Your task to perform on an android device: change notification settings in the gmail app Image 0: 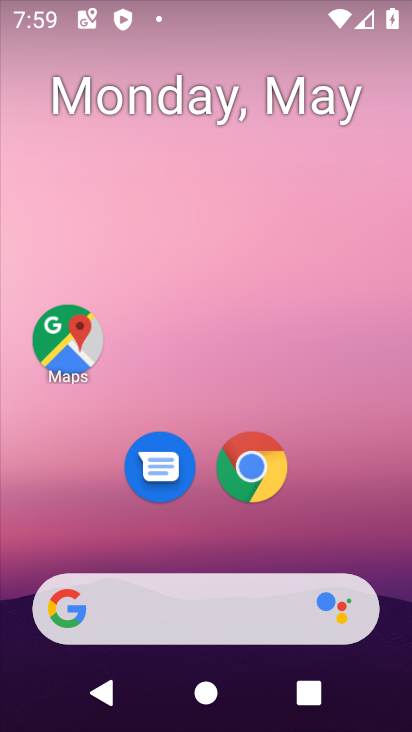
Step 0: press home button
Your task to perform on an android device: change notification settings in the gmail app Image 1: 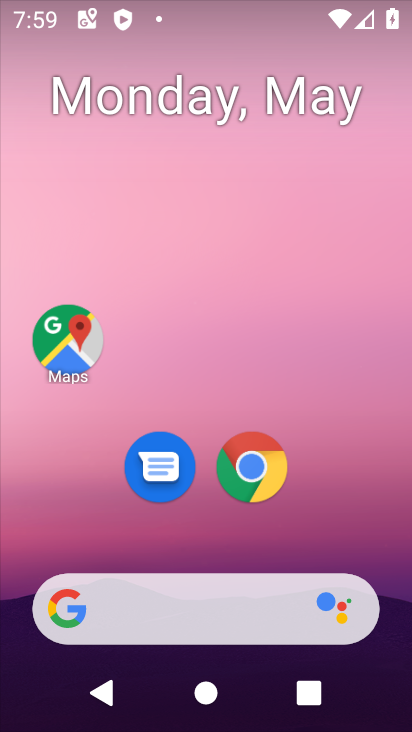
Step 1: drag from (333, 529) to (203, 10)
Your task to perform on an android device: change notification settings in the gmail app Image 2: 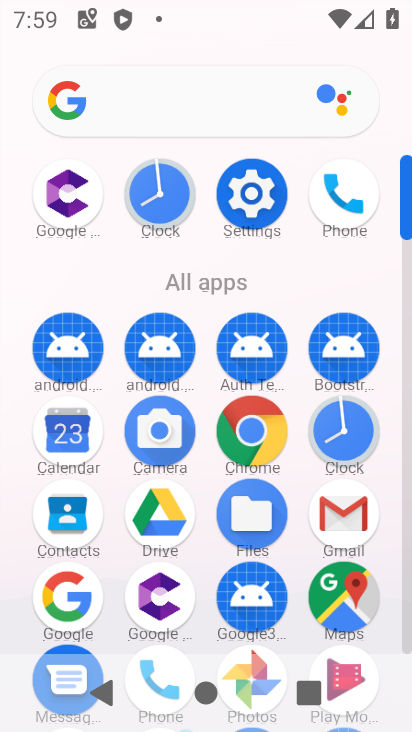
Step 2: click (351, 514)
Your task to perform on an android device: change notification settings in the gmail app Image 3: 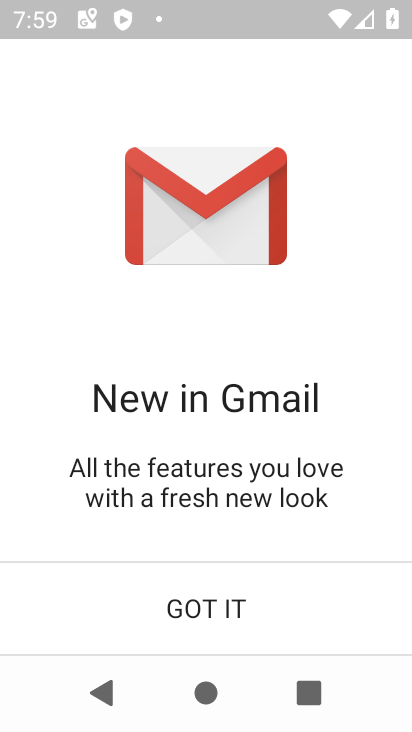
Step 3: click (216, 606)
Your task to perform on an android device: change notification settings in the gmail app Image 4: 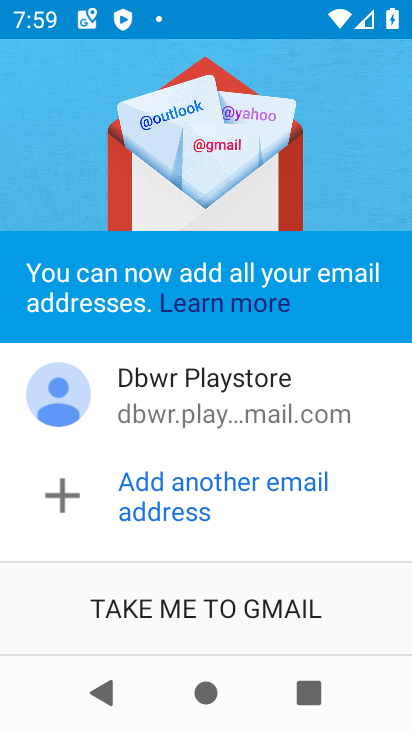
Step 4: click (227, 611)
Your task to perform on an android device: change notification settings in the gmail app Image 5: 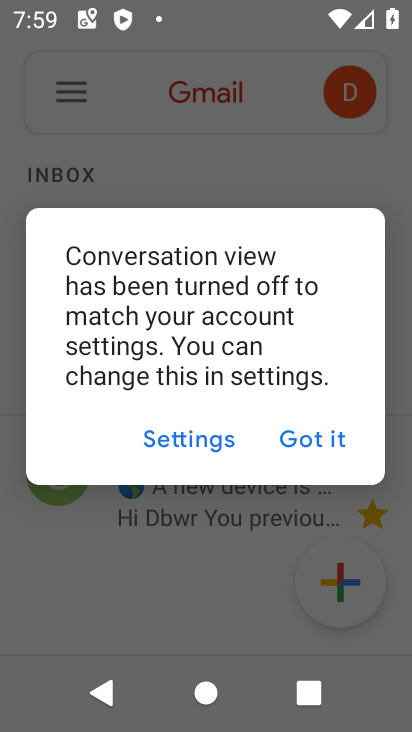
Step 5: click (318, 441)
Your task to perform on an android device: change notification settings in the gmail app Image 6: 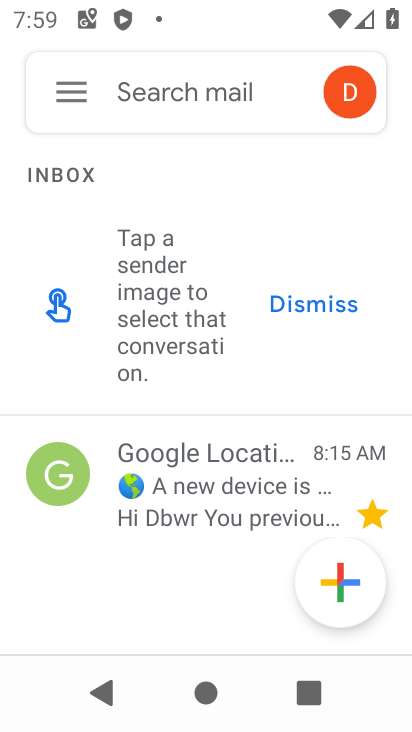
Step 6: click (74, 89)
Your task to perform on an android device: change notification settings in the gmail app Image 7: 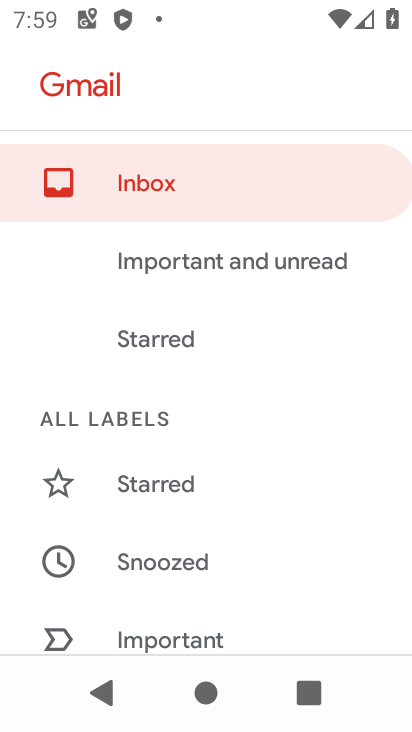
Step 7: drag from (267, 543) to (239, 63)
Your task to perform on an android device: change notification settings in the gmail app Image 8: 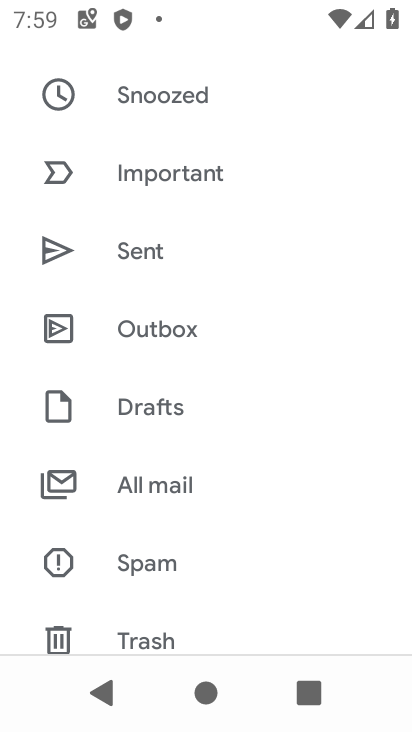
Step 8: drag from (260, 529) to (210, 40)
Your task to perform on an android device: change notification settings in the gmail app Image 9: 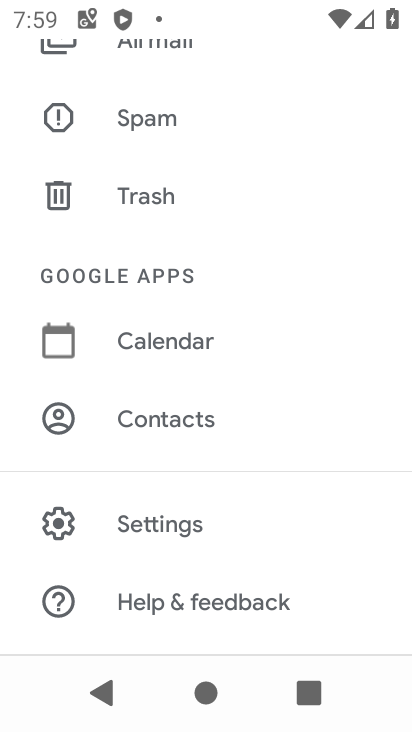
Step 9: click (154, 514)
Your task to perform on an android device: change notification settings in the gmail app Image 10: 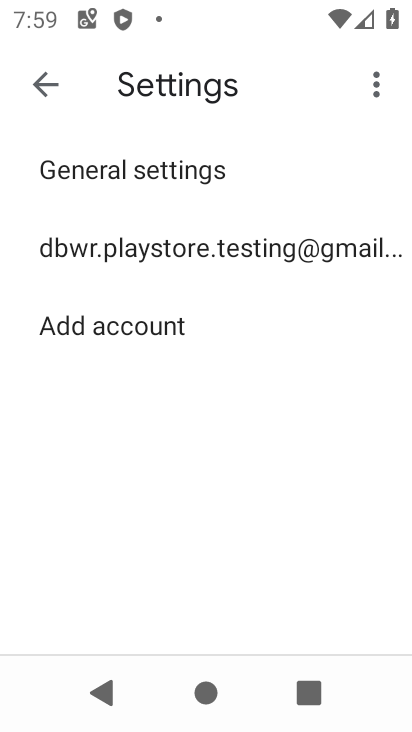
Step 10: click (158, 246)
Your task to perform on an android device: change notification settings in the gmail app Image 11: 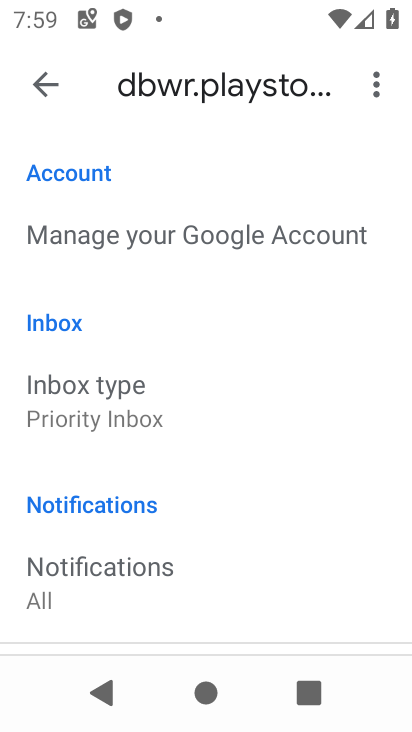
Step 11: click (220, 586)
Your task to perform on an android device: change notification settings in the gmail app Image 12: 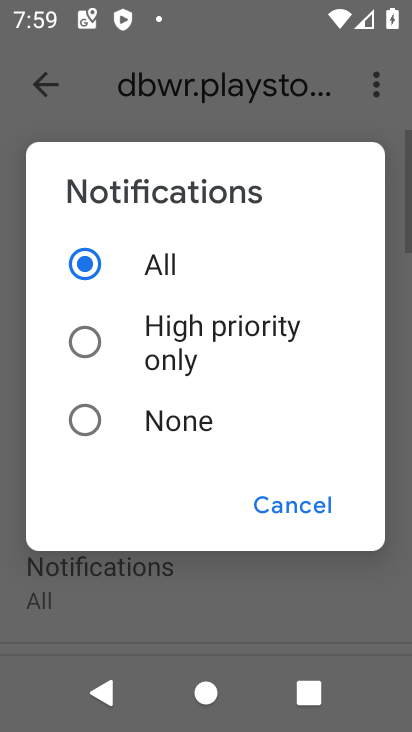
Step 12: click (176, 421)
Your task to perform on an android device: change notification settings in the gmail app Image 13: 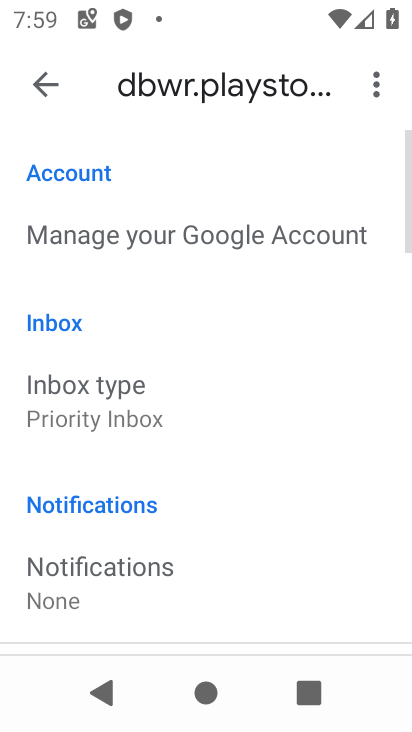
Step 13: task complete